Your task to perform on an android device: Go to Amazon Image 0: 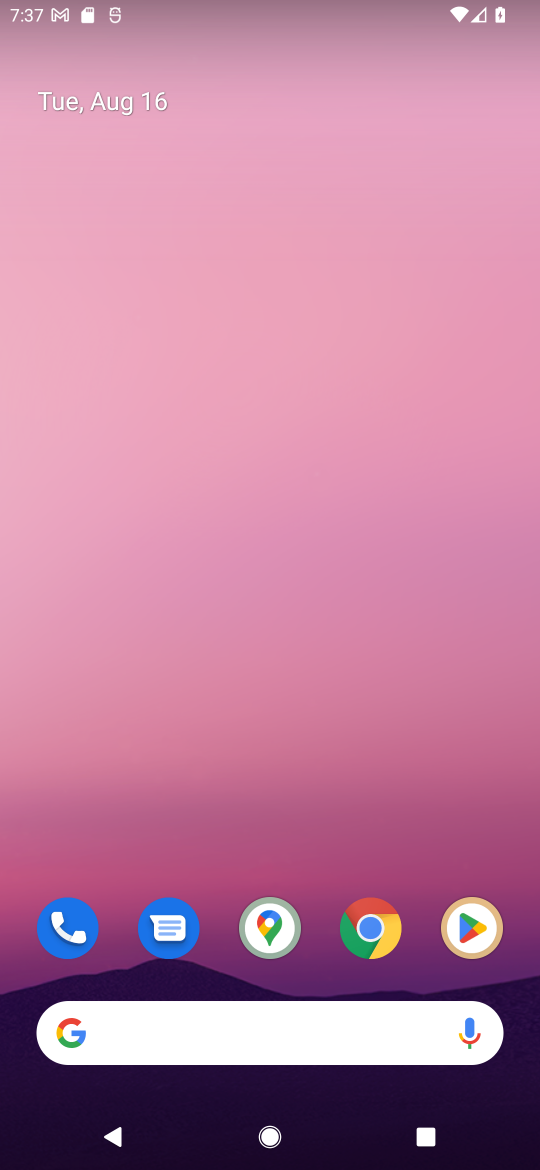
Step 0: click (371, 927)
Your task to perform on an android device: Go to Amazon Image 1: 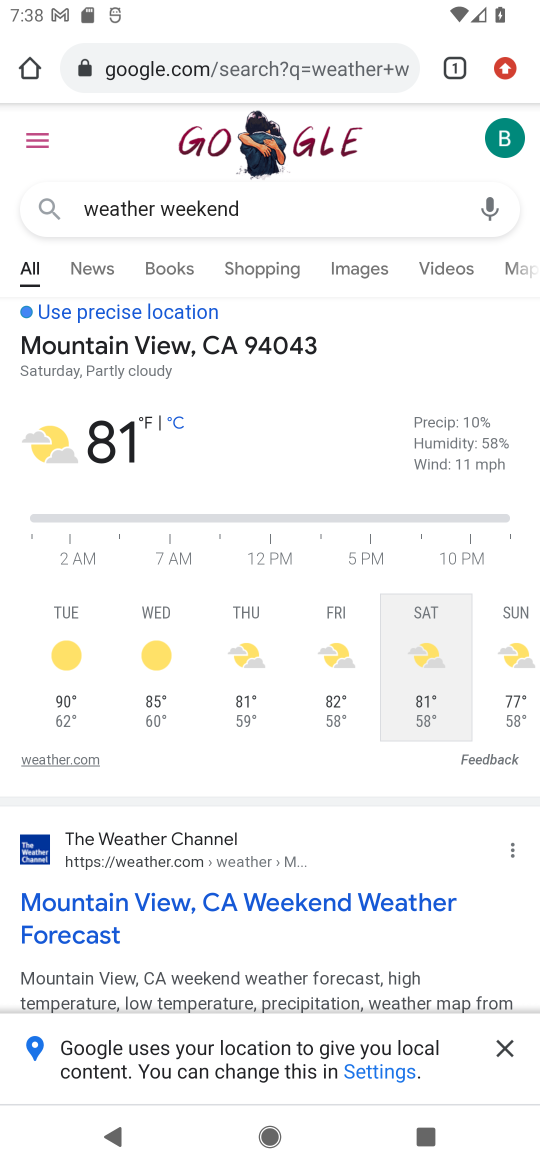
Step 1: click (253, 71)
Your task to perform on an android device: Go to Amazon Image 2: 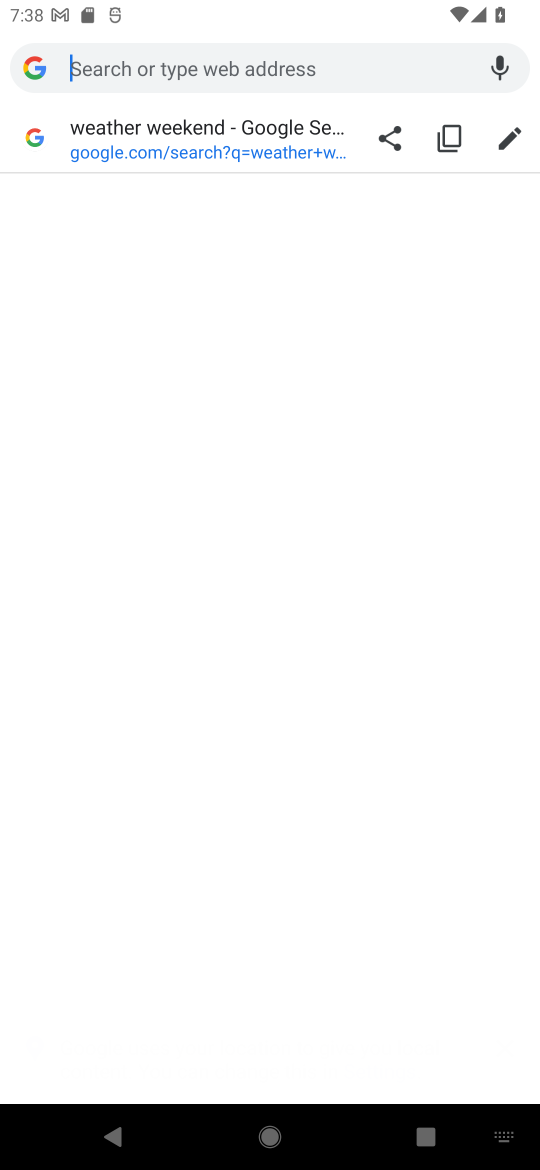
Step 2: type "amazon"
Your task to perform on an android device: Go to Amazon Image 3: 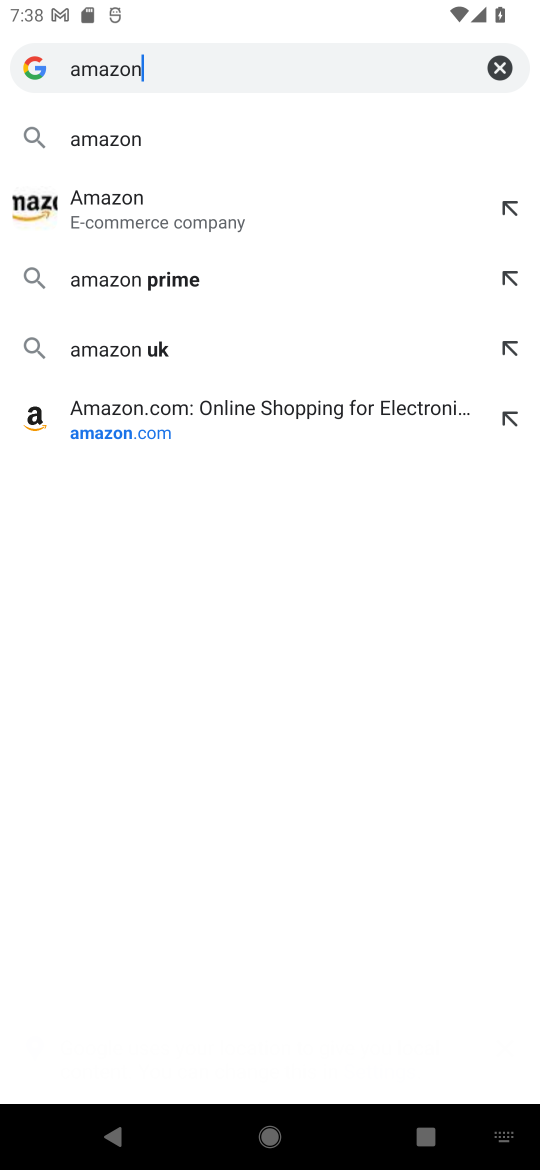
Step 3: click (173, 412)
Your task to perform on an android device: Go to Amazon Image 4: 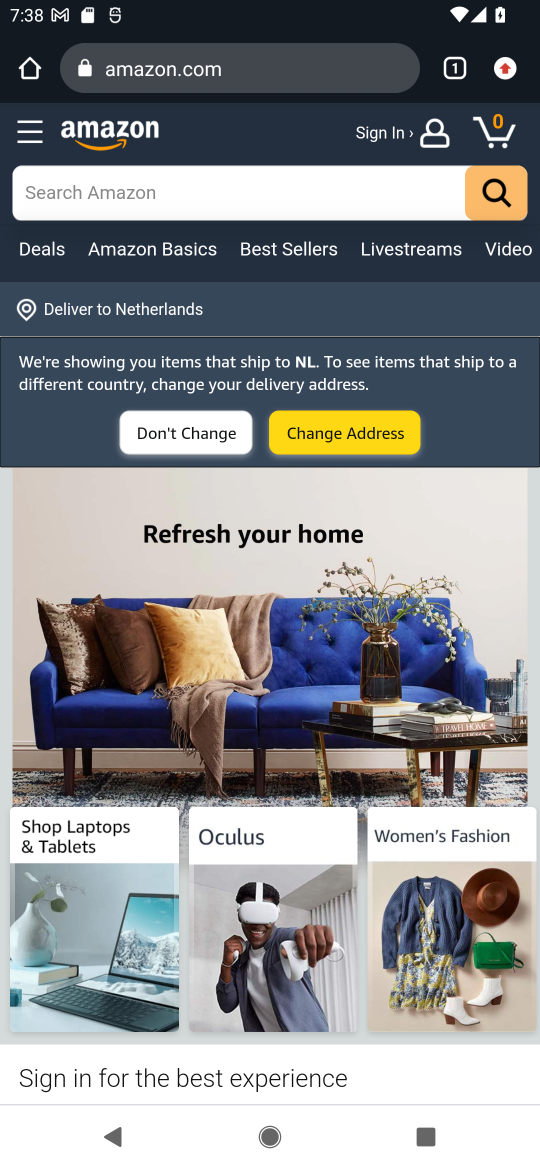
Step 4: task complete